Your task to perform on an android device: visit the assistant section in the google photos Image 0: 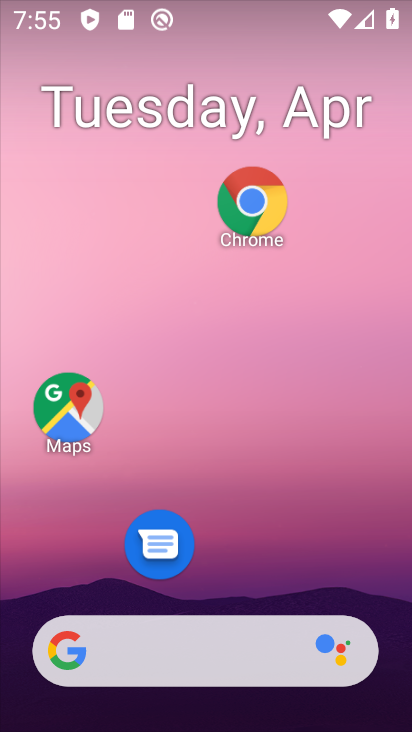
Step 0: drag from (238, 555) to (298, 30)
Your task to perform on an android device: visit the assistant section in the google photos Image 1: 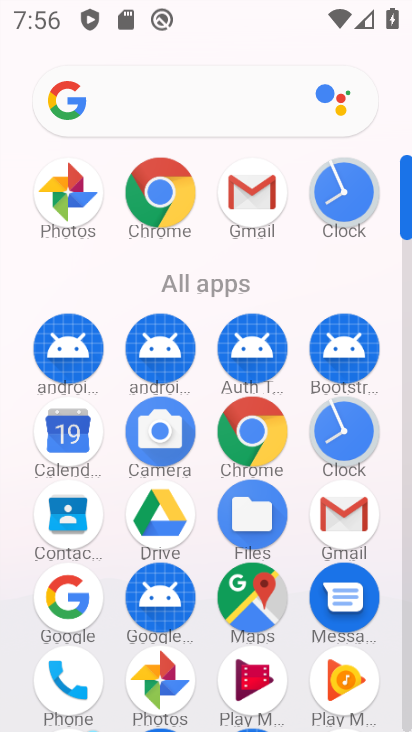
Step 1: click (169, 684)
Your task to perform on an android device: visit the assistant section in the google photos Image 2: 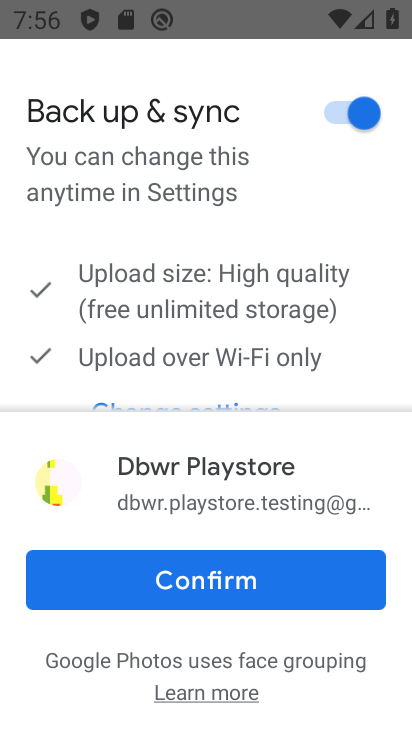
Step 2: click (210, 596)
Your task to perform on an android device: visit the assistant section in the google photos Image 3: 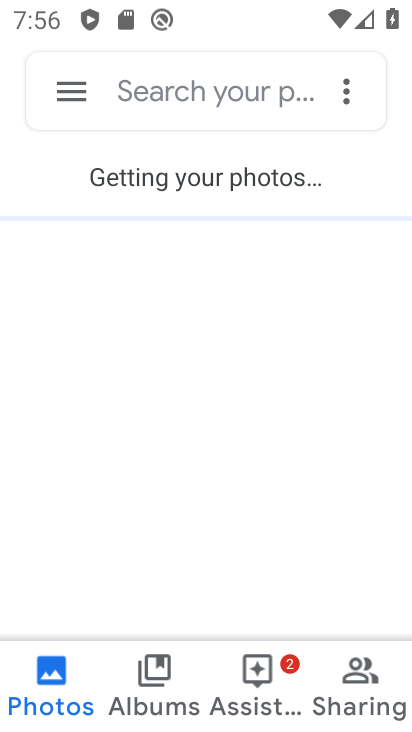
Step 3: click (251, 673)
Your task to perform on an android device: visit the assistant section in the google photos Image 4: 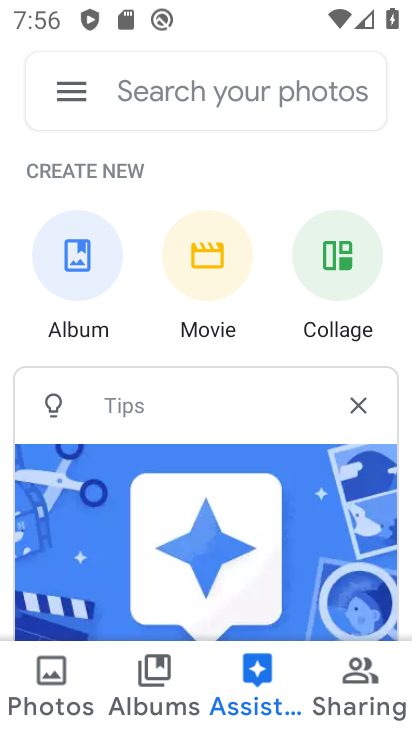
Step 4: task complete